Your task to perform on an android device: turn notification dots off Image 0: 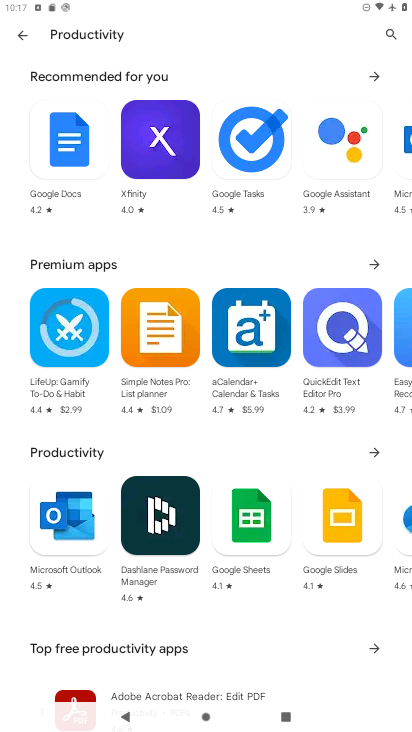
Step 0: press home button
Your task to perform on an android device: turn notification dots off Image 1: 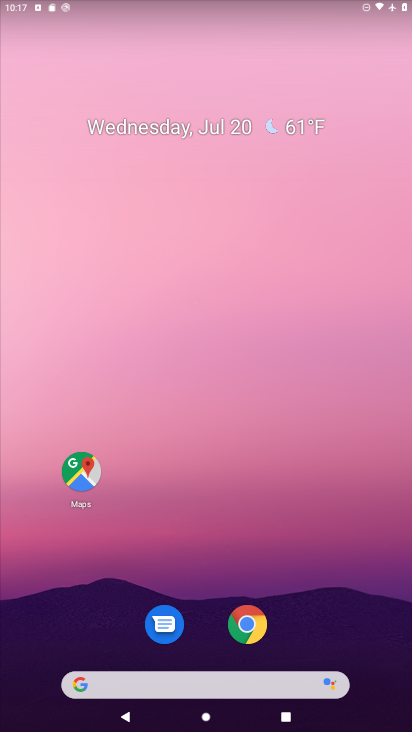
Step 1: drag from (187, 616) to (211, 285)
Your task to perform on an android device: turn notification dots off Image 2: 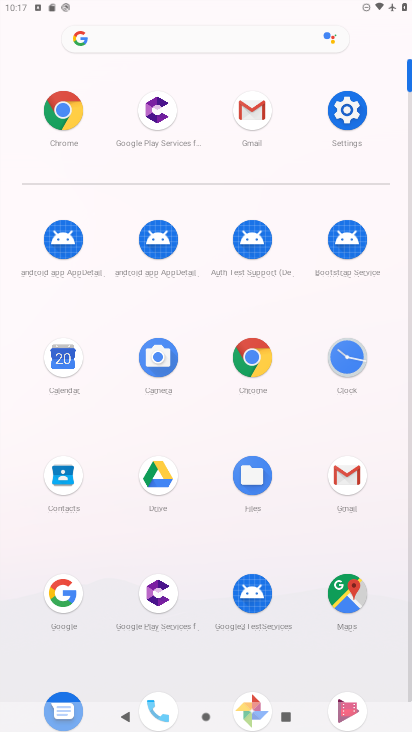
Step 2: click (330, 122)
Your task to perform on an android device: turn notification dots off Image 3: 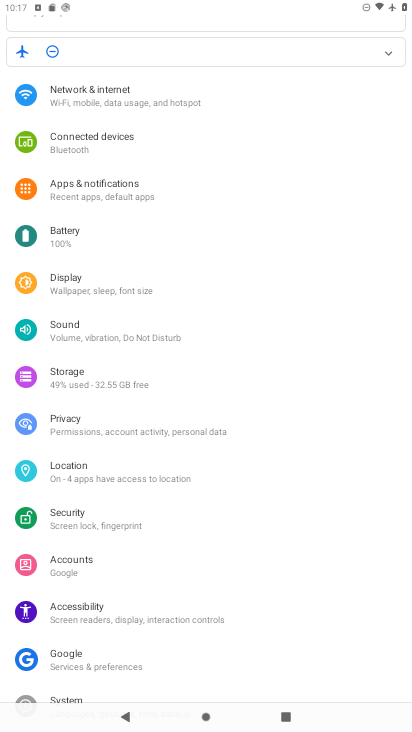
Step 3: click (186, 207)
Your task to perform on an android device: turn notification dots off Image 4: 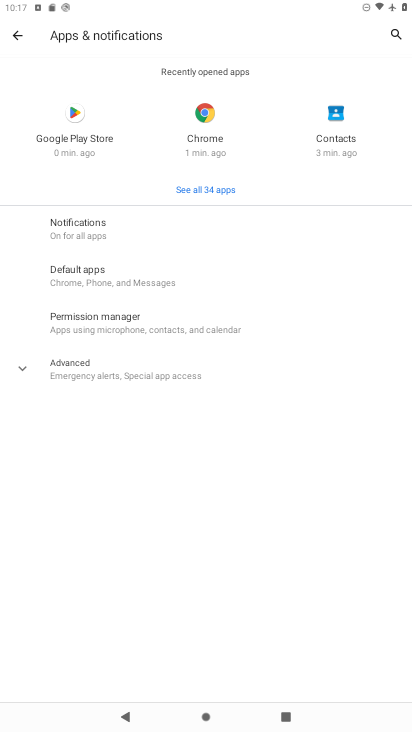
Step 4: click (93, 233)
Your task to perform on an android device: turn notification dots off Image 5: 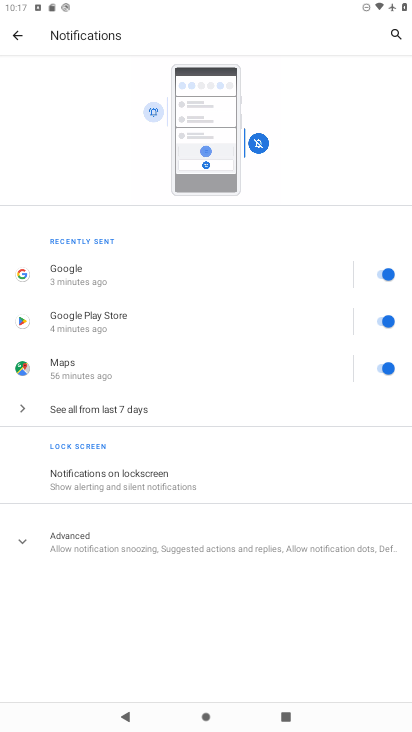
Step 5: click (157, 553)
Your task to perform on an android device: turn notification dots off Image 6: 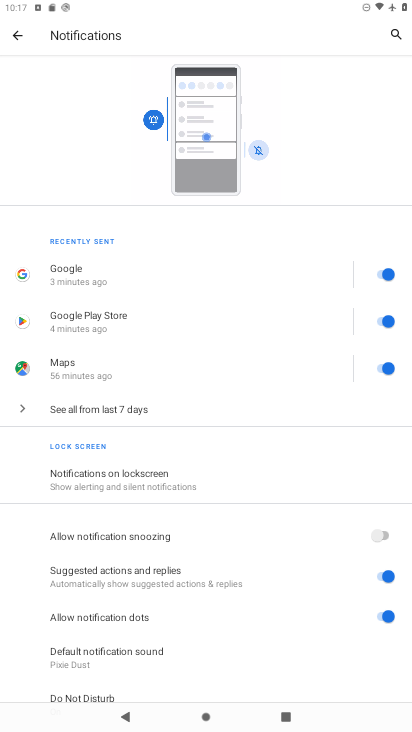
Step 6: click (376, 613)
Your task to perform on an android device: turn notification dots off Image 7: 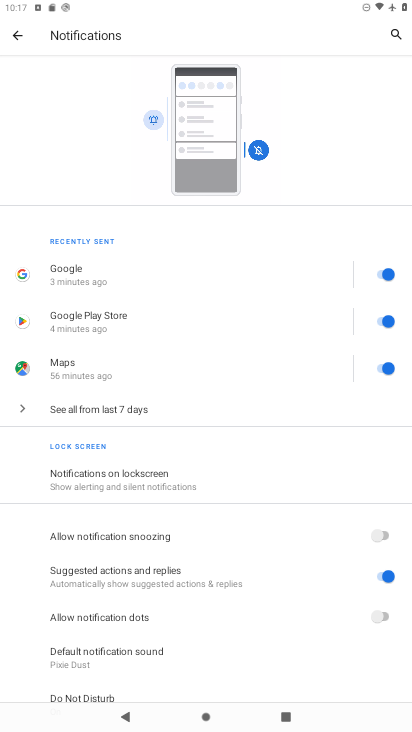
Step 7: task complete